Your task to perform on an android device: Open settings on Google Maps Image 0: 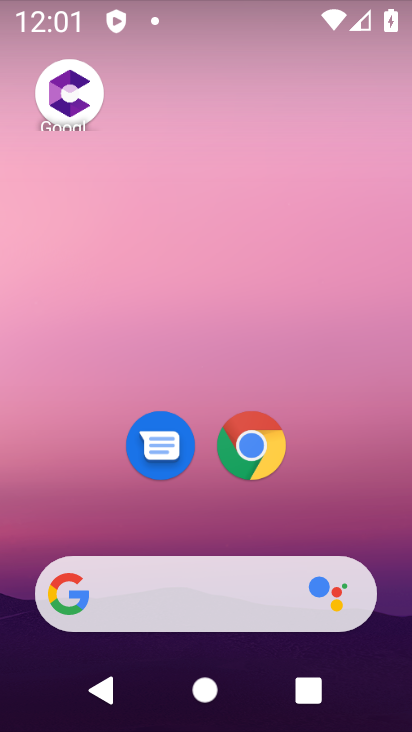
Step 0: drag from (162, 548) to (249, 151)
Your task to perform on an android device: Open settings on Google Maps Image 1: 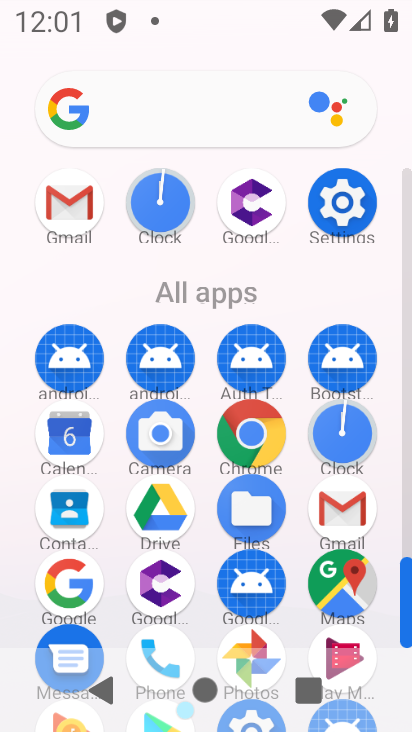
Step 1: click (354, 581)
Your task to perform on an android device: Open settings on Google Maps Image 2: 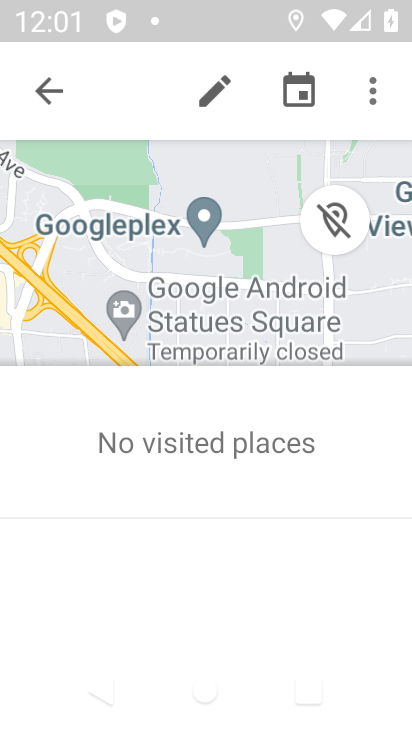
Step 2: click (38, 108)
Your task to perform on an android device: Open settings on Google Maps Image 3: 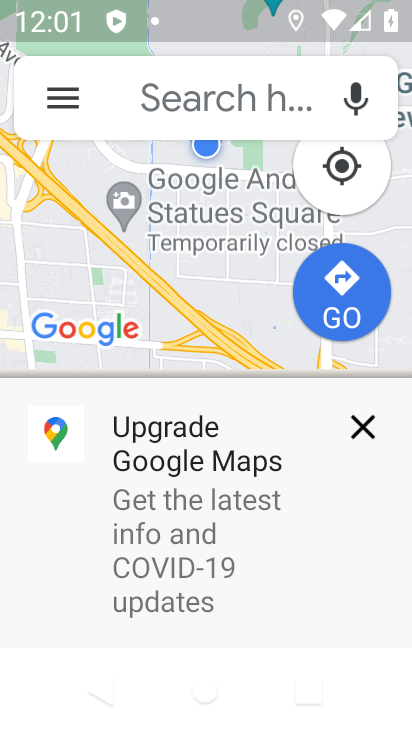
Step 3: click (46, 99)
Your task to perform on an android device: Open settings on Google Maps Image 4: 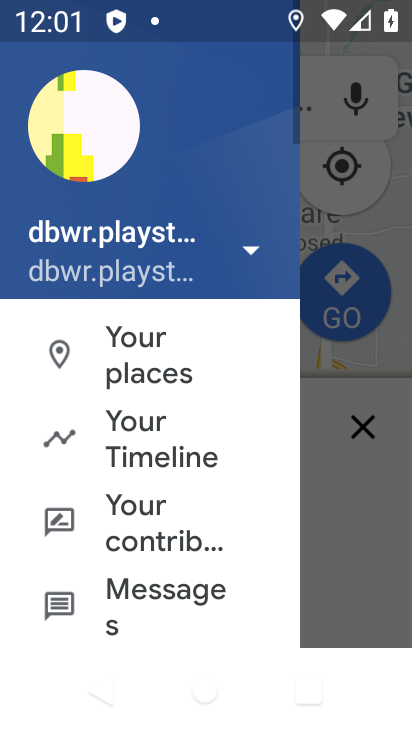
Step 4: drag from (171, 585) to (257, 236)
Your task to perform on an android device: Open settings on Google Maps Image 5: 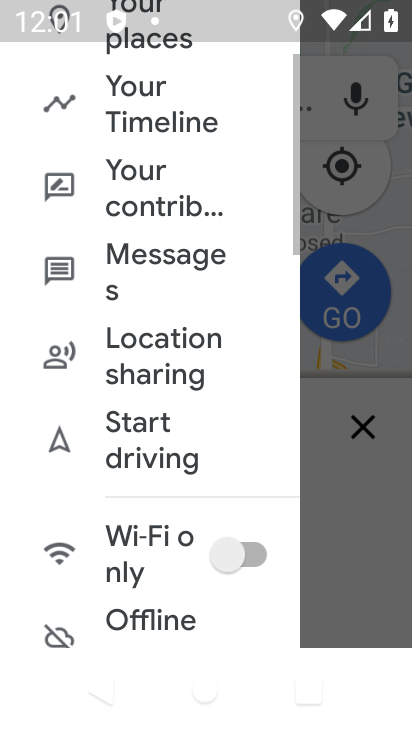
Step 5: drag from (179, 583) to (259, 219)
Your task to perform on an android device: Open settings on Google Maps Image 6: 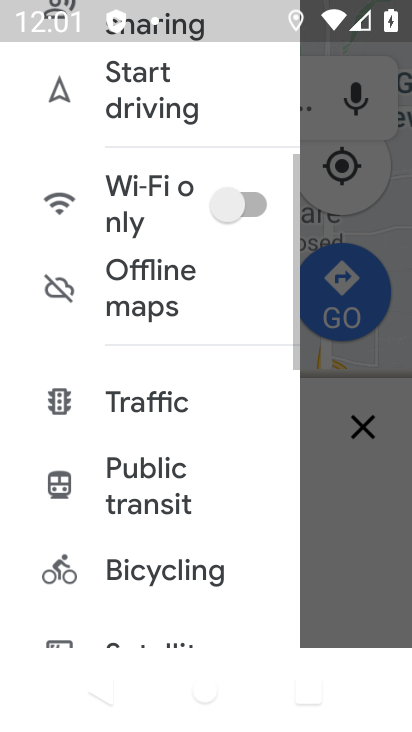
Step 6: drag from (159, 571) to (217, 265)
Your task to perform on an android device: Open settings on Google Maps Image 7: 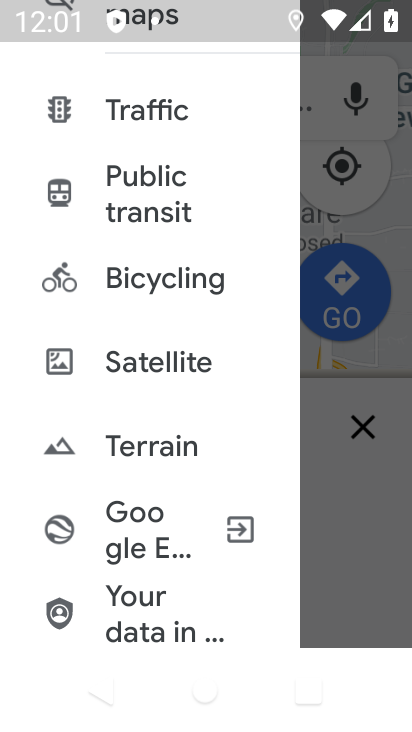
Step 7: drag from (141, 593) to (199, 278)
Your task to perform on an android device: Open settings on Google Maps Image 8: 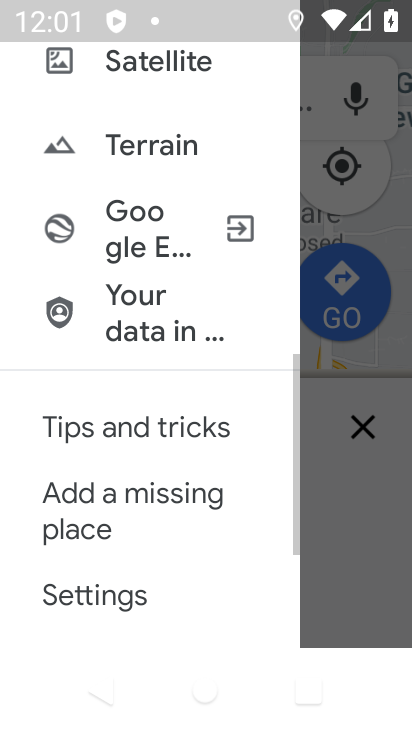
Step 8: drag from (152, 584) to (190, 298)
Your task to perform on an android device: Open settings on Google Maps Image 9: 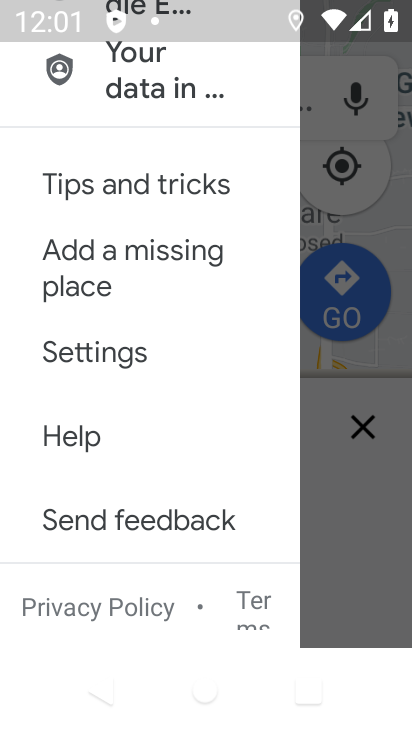
Step 9: click (165, 358)
Your task to perform on an android device: Open settings on Google Maps Image 10: 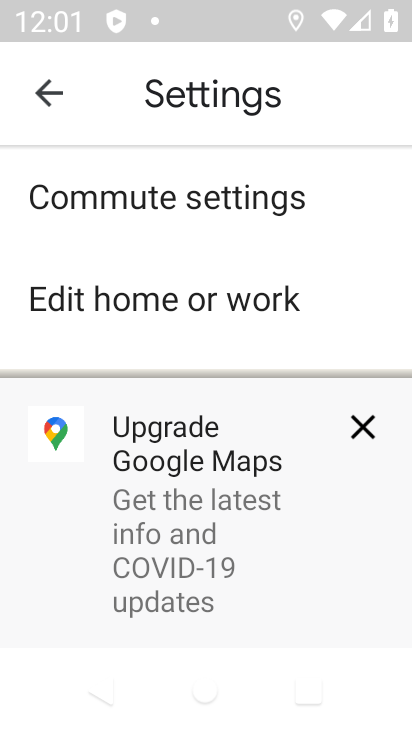
Step 10: click (364, 413)
Your task to perform on an android device: Open settings on Google Maps Image 11: 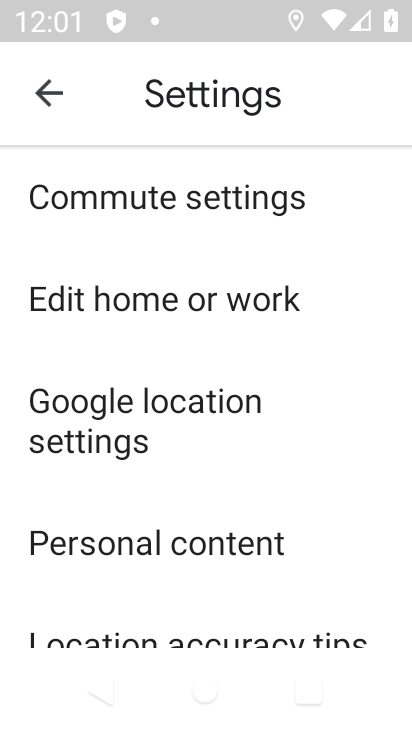
Step 11: task complete